Your task to perform on an android device: open app "DuckDuckGo Privacy Browser" (install if not already installed) Image 0: 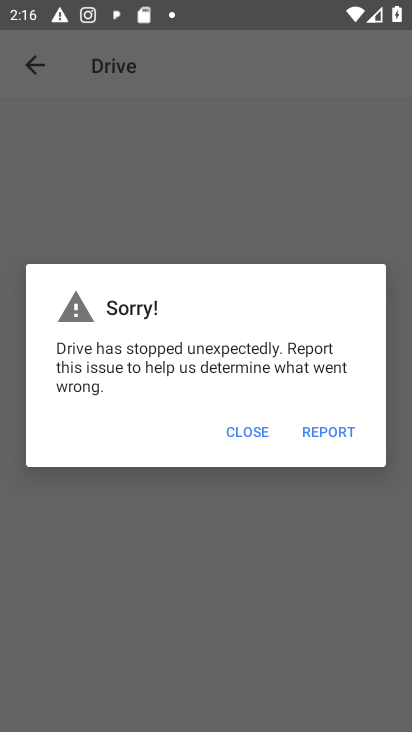
Step 0: press enter
Your task to perform on an android device: open app "DuckDuckGo Privacy Browser" (install if not already installed) Image 1: 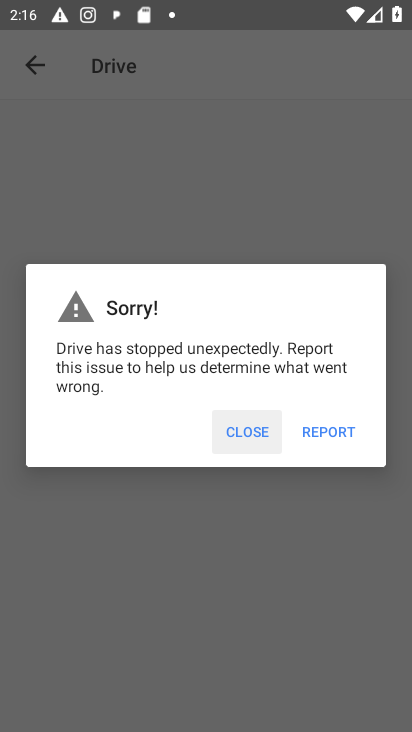
Step 1: press home button
Your task to perform on an android device: open app "DuckDuckGo Privacy Browser" (install if not already installed) Image 2: 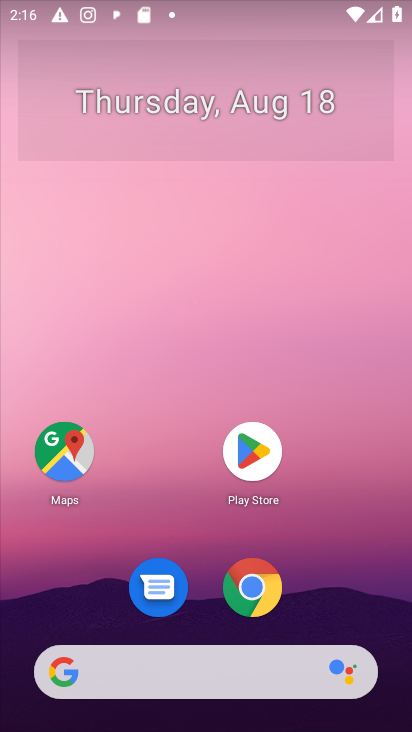
Step 2: click (253, 457)
Your task to perform on an android device: open app "DuckDuckGo Privacy Browser" (install if not already installed) Image 3: 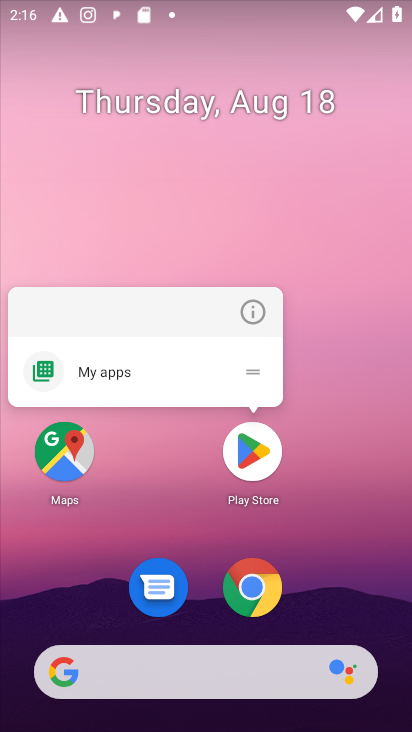
Step 3: click (253, 458)
Your task to perform on an android device: open app "DuckDuckGo Privacy Browser" (install if not already installed) Image 4: 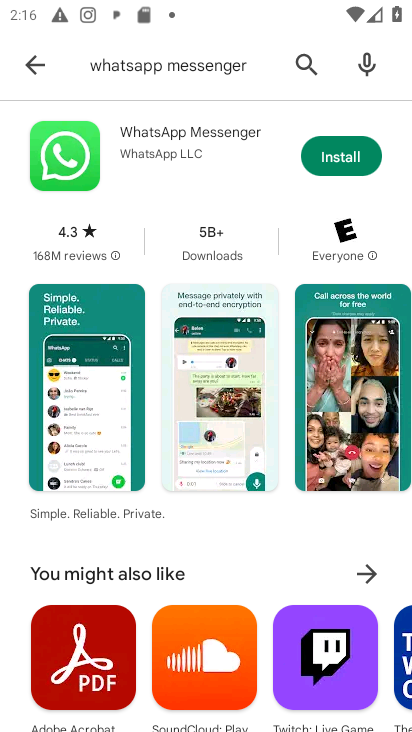
Step 4: click (301, 63)
Your task to perform on an android device: open app "DuckDuckGo Privacy Browser" (install if not already installed) Image 5: 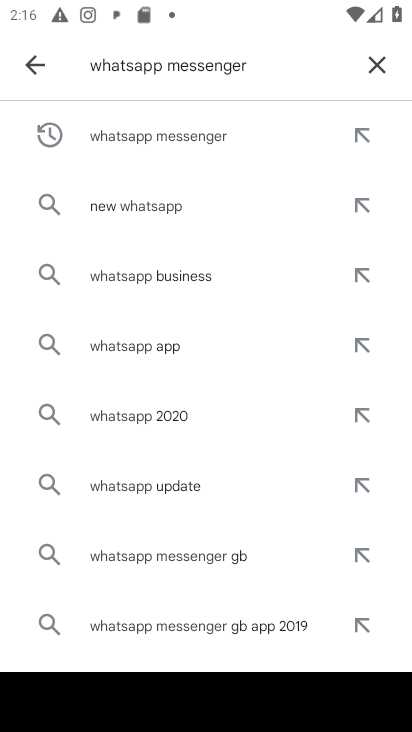
Step 5: click (377, 63)
Your task to perform on an android device: open app "DuckDuckGo Privacy Browser" (install if not already installed) Image 6: 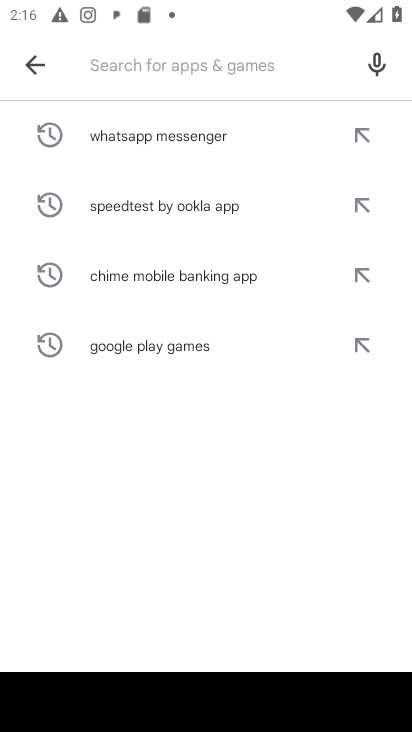
Step 6: type "DuckDuckGo Privacy Browser"
Your task to perform on an android device: open app "DuckDuckGo Privacy Browser" (install if not already installed) Image 7: 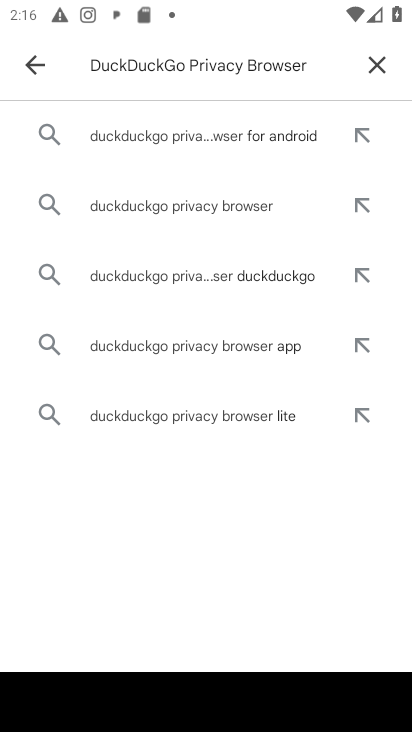
Step 7: click (216, 134)
Your task to perform on an android device: open app "DuckDuckGo Privacy Browser" (install if not already installed) Image 8: 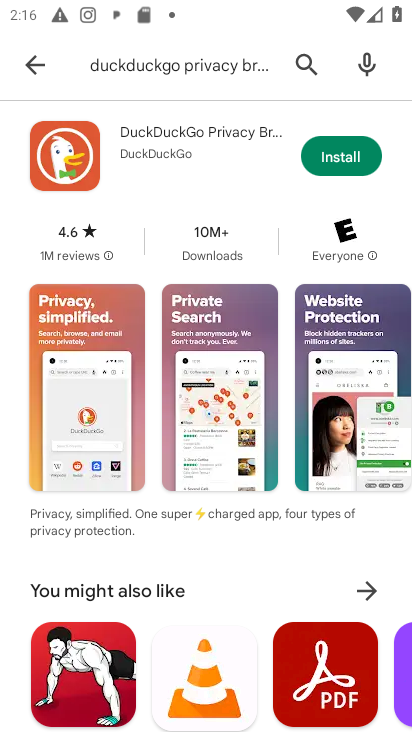
Step 8: click (343, 156)
Your task to perform on an android device: open app "DuckDuckGo Privacy Browser" (install if not already installed) Image 9: 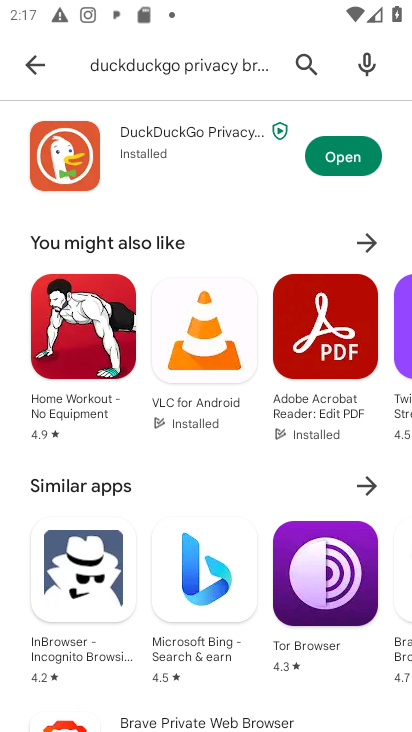
Step 9: click (336, 161)
Your task to perform on an android device: open app "DuckDuckGo Privacy Browser" (install if not already installed) Image 10: 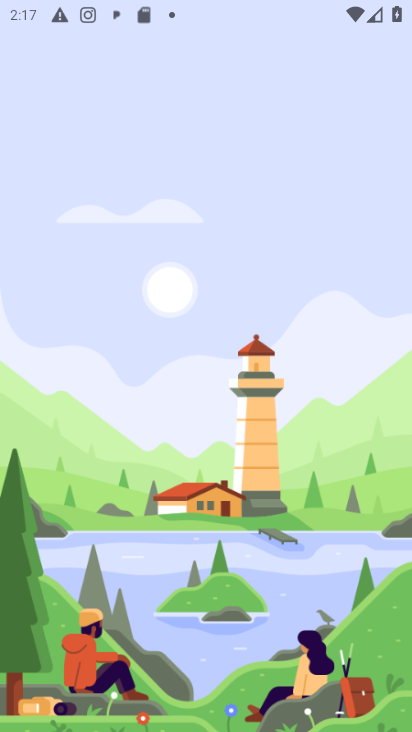
Step 10: task complete